Your task to perform on an android device: toggle priority inbox in the gmail app Image 0: 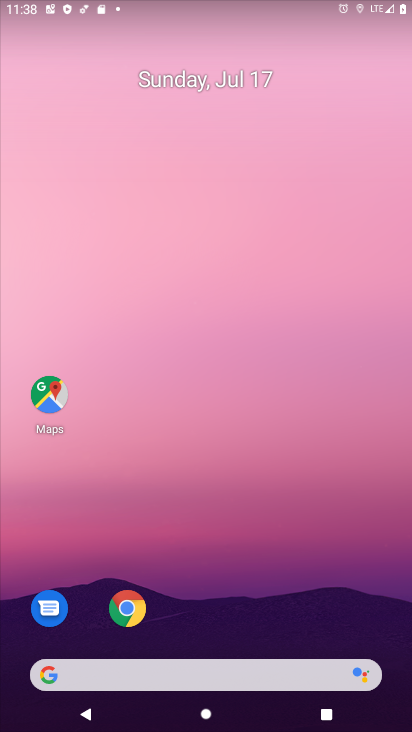
Step 0: drag from (208, 637) to (184, 75)
Your task to perform on an android device: toggle priority inbox in the gmail app Image 1: 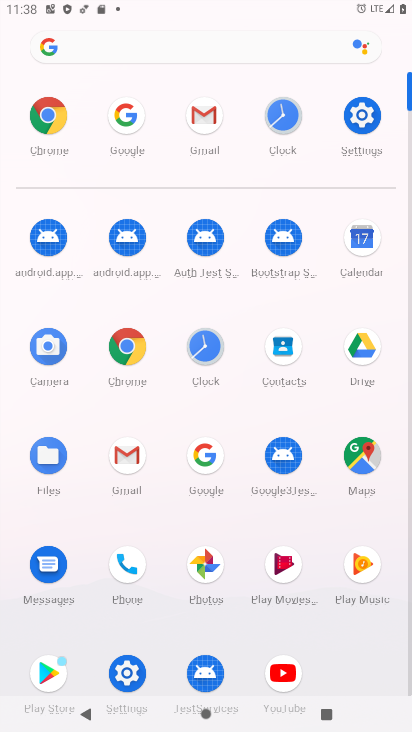
Step 1: click (124, 460)
Your task to perform on an android device: toggle priority inbox in the gmail app Image 2: 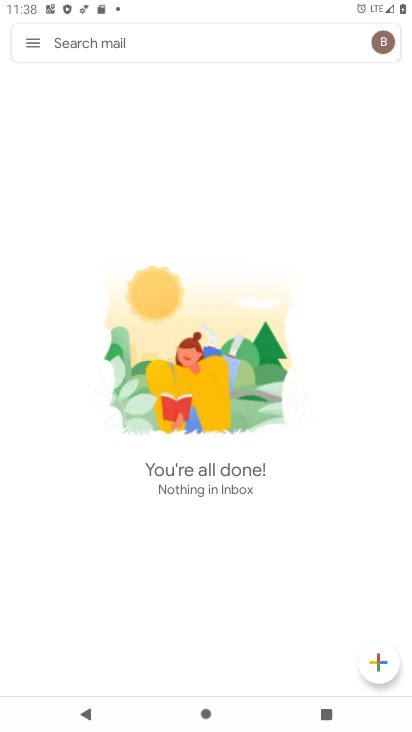
Step 2: click (33, 49)
Your task to perform on an android device: toggle priority inbox in the gmail app Image 3: 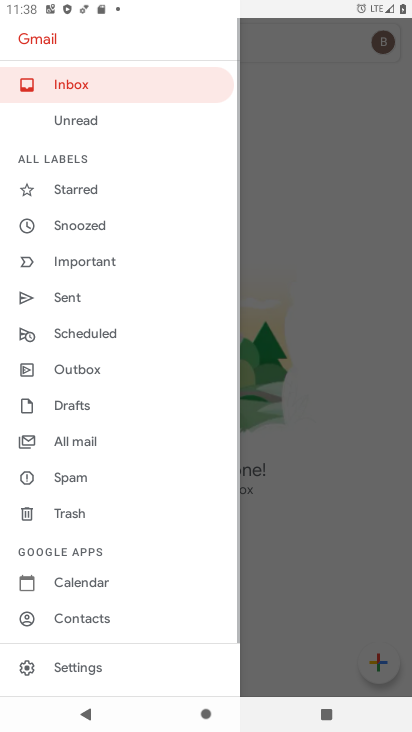
Step 3: click (71, 662)
Your task to perform on an android device: toggle priority inbox in the gmail app Image 4: 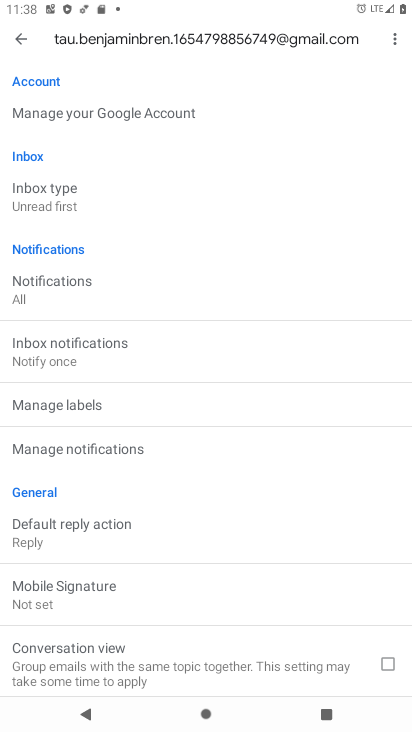
Step 4: click (79, 202)
Your task to perform on an android device: toggle priority inbox in the gmail app Image 5: 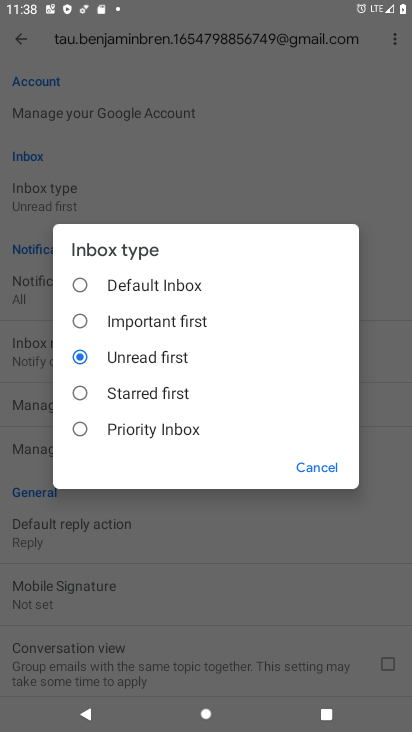
Step 5: click (144, 425)
Your task to perform on an android device: toggle priority inbox in the gmail app Image 6: 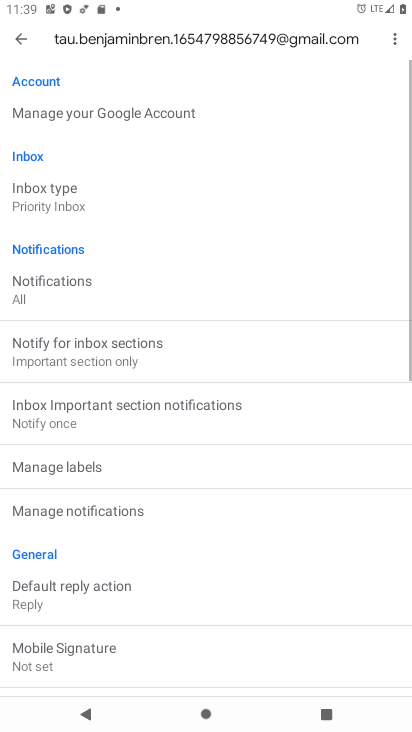
Step 6: task complete